Your task to perform on an android device: Open Google Chrome and open the bookmarks view Image 0: 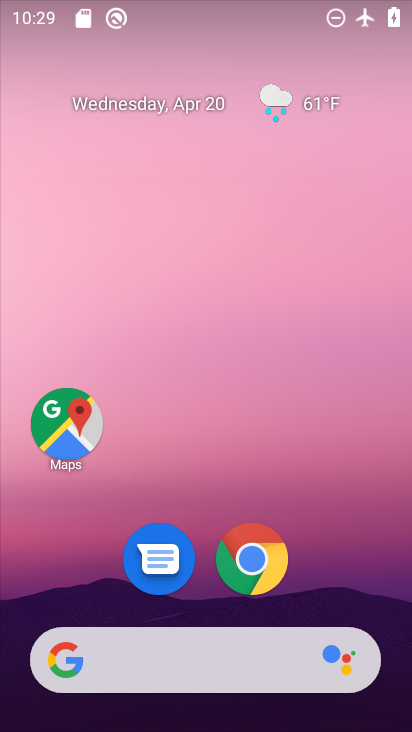
Step 0: click (249, 561)
Your task to perform on an android device: Open Google Chrome and open the bookmarks view Image 1: 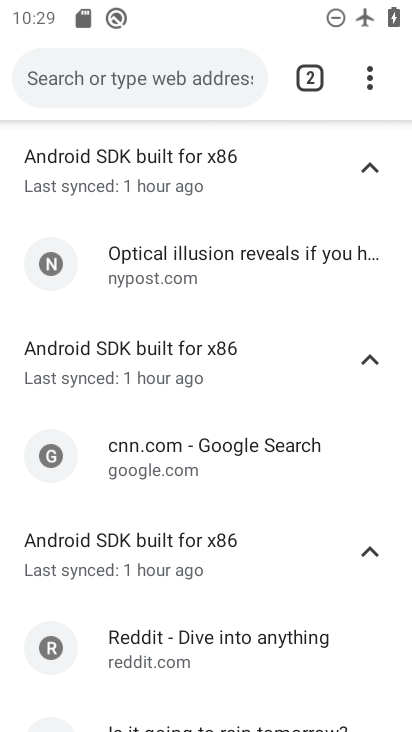
Step 1: click (369, 81)
Your task to perform on an android device: Open Google Chrome and open the bookmarks view Image 2: 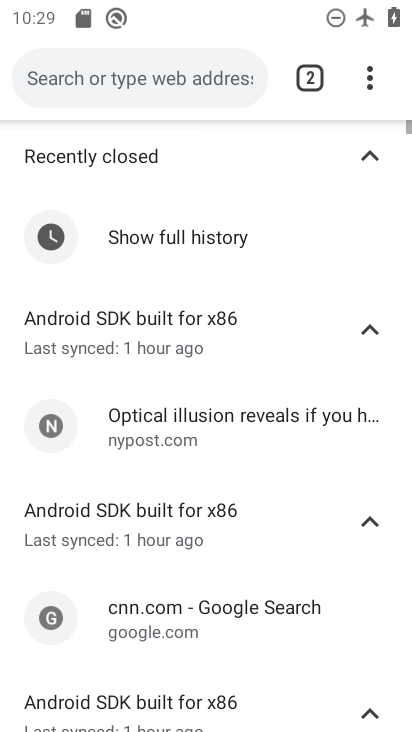
Step 2: click (369, 81)
Your task to perform on an android device: Open Google Chrome and open the bookmarks view Image 3: 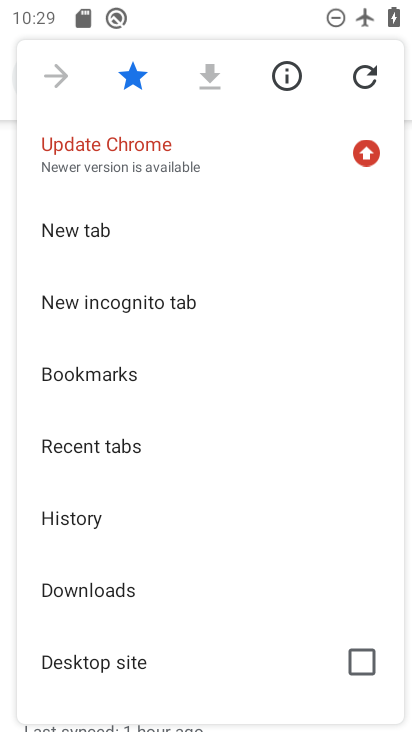
Step 3: click (103, 377)
Your task to perform on an android device: Open Google Chrome and open the bookmarks view Image 4: 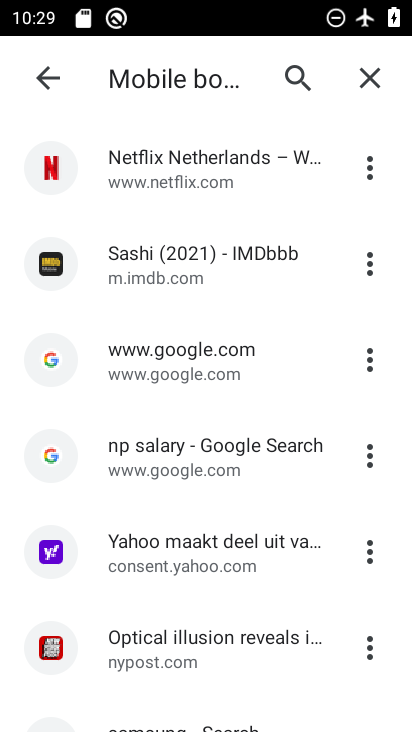
Step 4: task complete